Your task to perform on an android device: change keyboard looks Image 0: 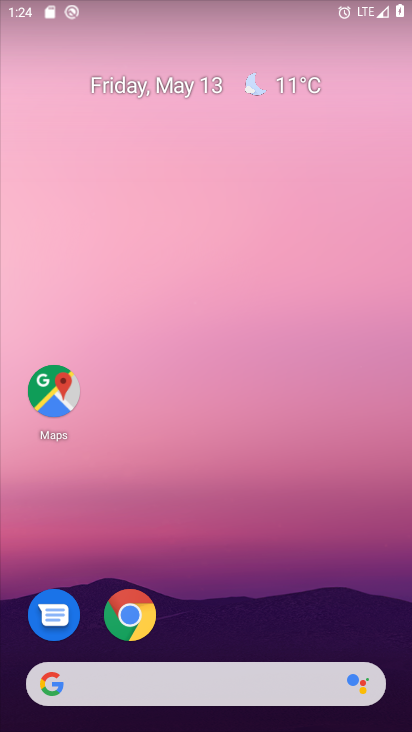
Step 0: drag from (268, 606) to (261, 40)
Your task to perform on an android device: change keyboard looks Image 1: 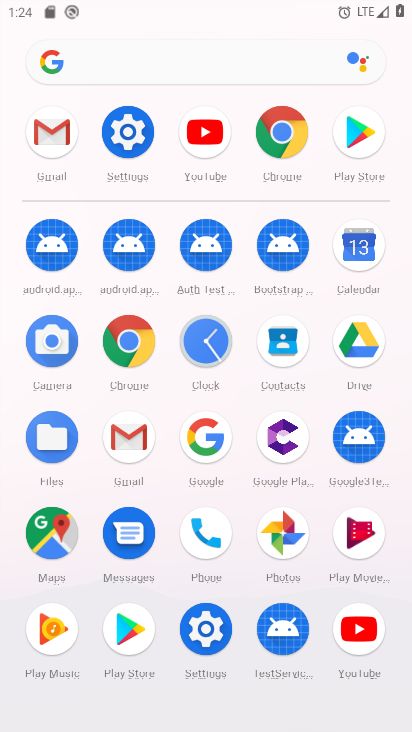
Step 1: click (137, 139)
Your task to perform on an android device: change keyboard looks Image 2: 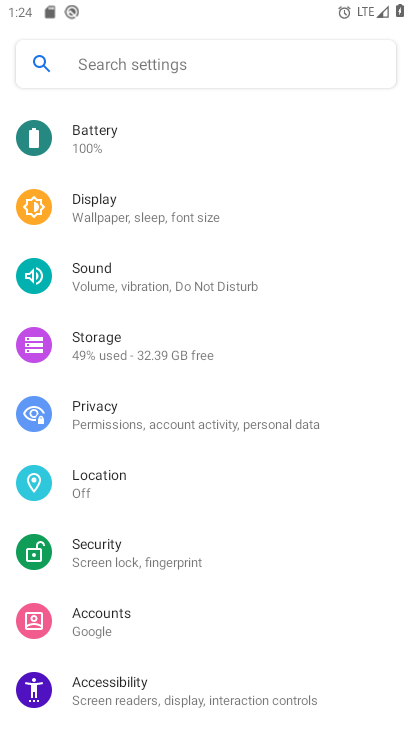
Step 2: drag from (212, 621) to (226, 97)
Your task to perform on an android device: change keyboard looks Image 3: 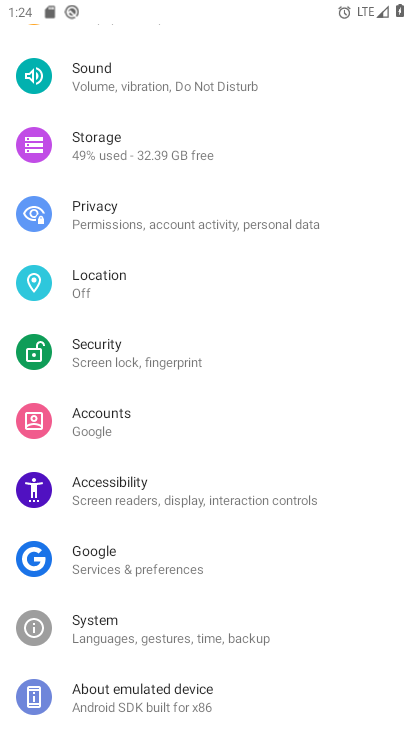
Step 3: click (204, 697)
Your task to perform on an android device: change keyboard looks Image 4: 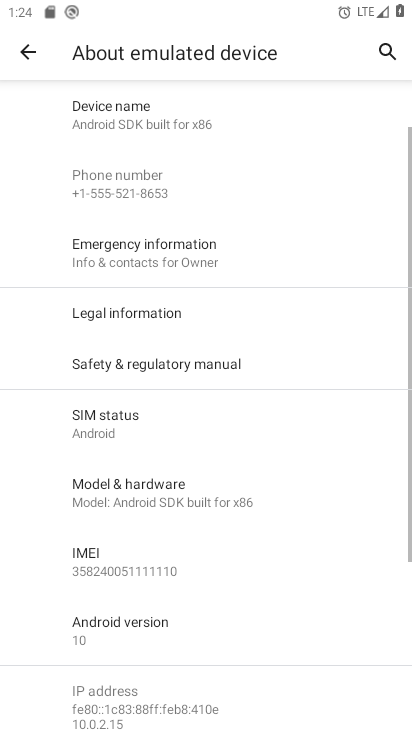
Step 4: click (24, 49)
Your task to perform on an android device: change keyboard looks Image 5: 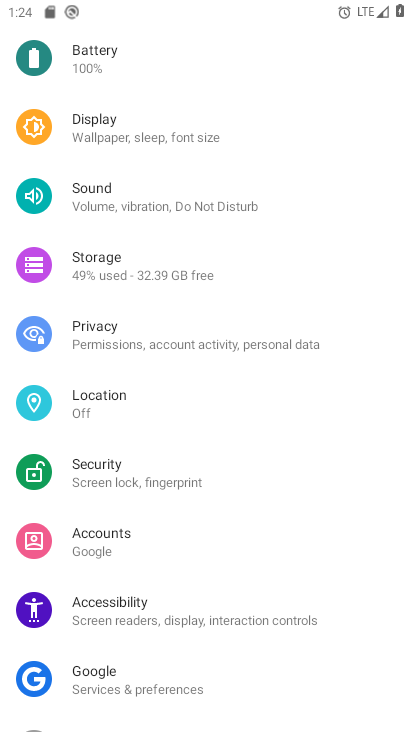
Step 5: drag from (158, 657) to (165, 548)
Your task to perform on an android device: change keyboard looks Image 6: 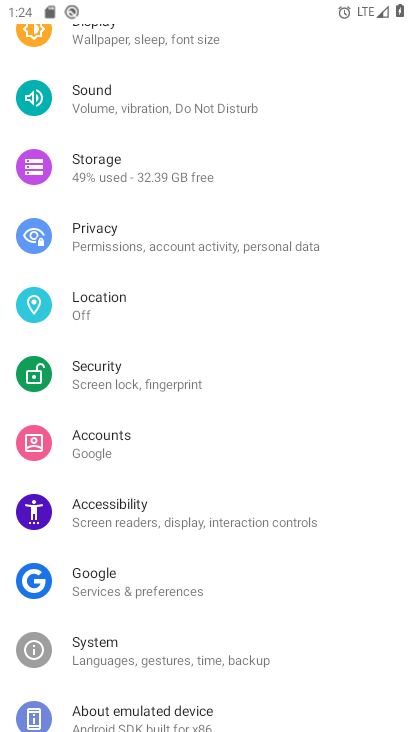
Step 6: click (145, 635)
Your task to perform on an android device: change keyboard looks Image 7: 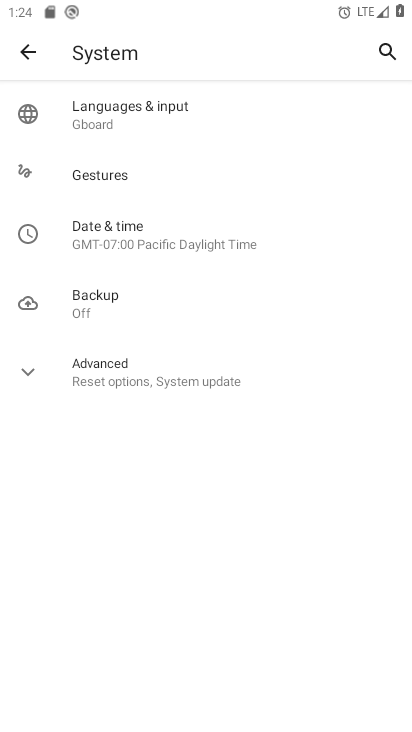
Step 7: click (127, 124)
Your task to perform on an android device: change keyboard looks Image 8: 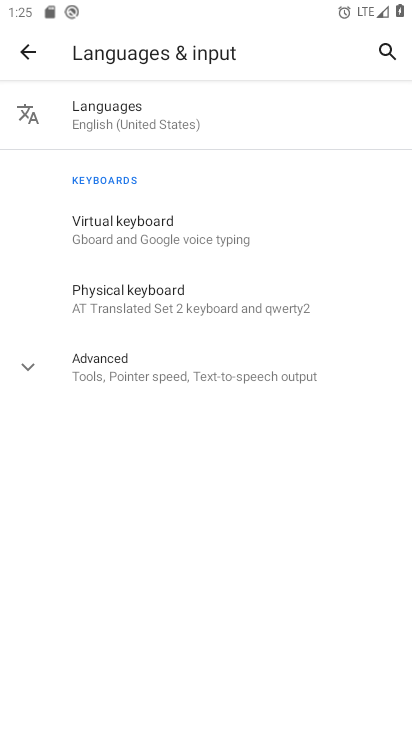
Step 8: click (120, 227)
Your task to perform on an android device: change keyboard looks Image 9: 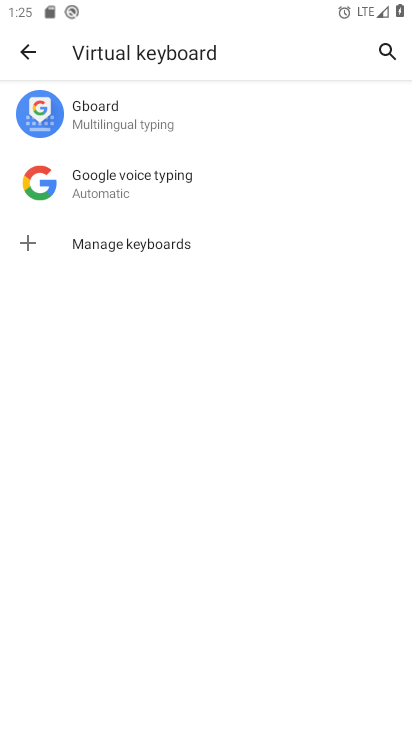
Step 9: click (107, 113)
Your task to perform on an android device: change keyboard looks Image 10: 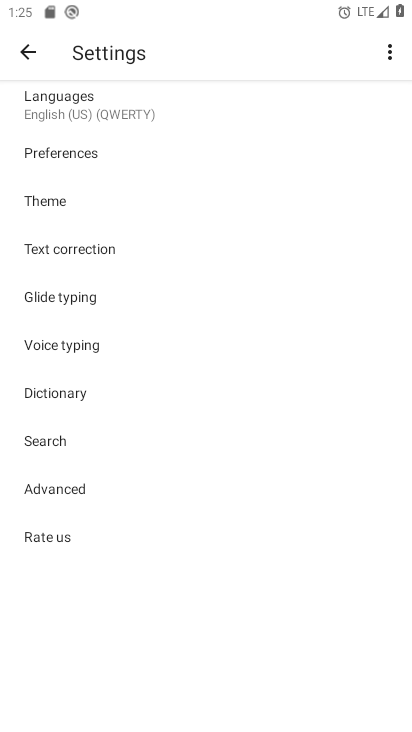
Step 10: click (79, 204)
Your task to perform on an android device: change keyboard looks Image 11: 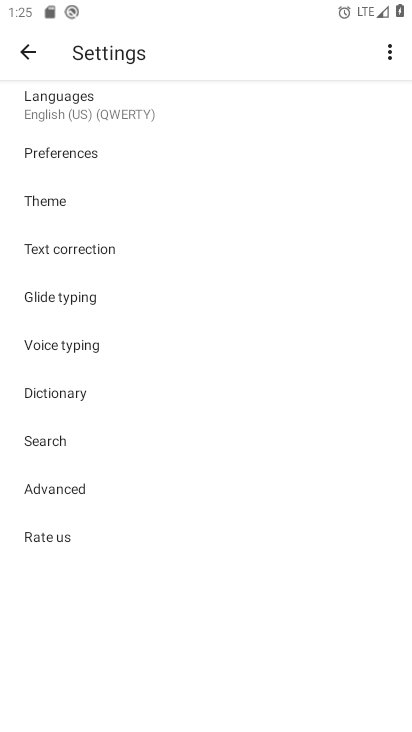
Step 11: click (89, 197)
Your task to perform on an android device: change keyboard looks Image 12: 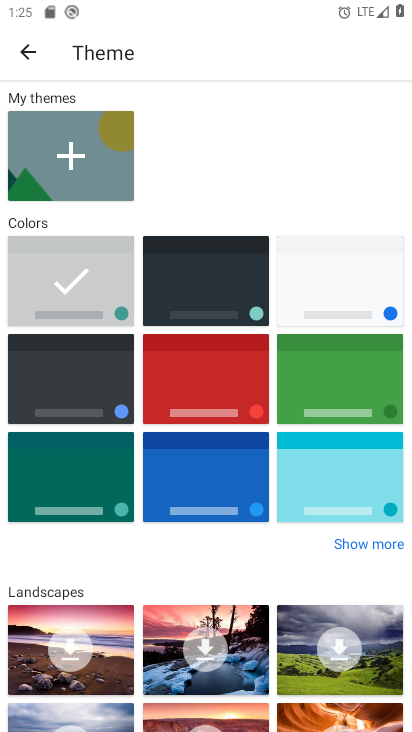
Step 12: click (181, 281)
Your task to perform on an android device: change keyboard looks Image 13: 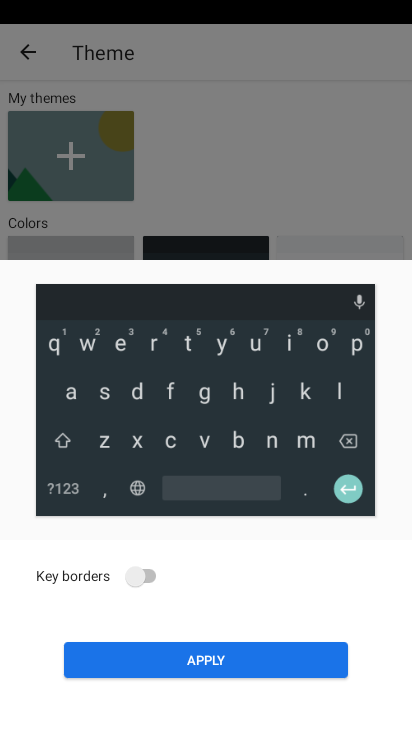
Step 13: click (139, 571)
Your task to perform on an android device: change keyboard looks Image 14: 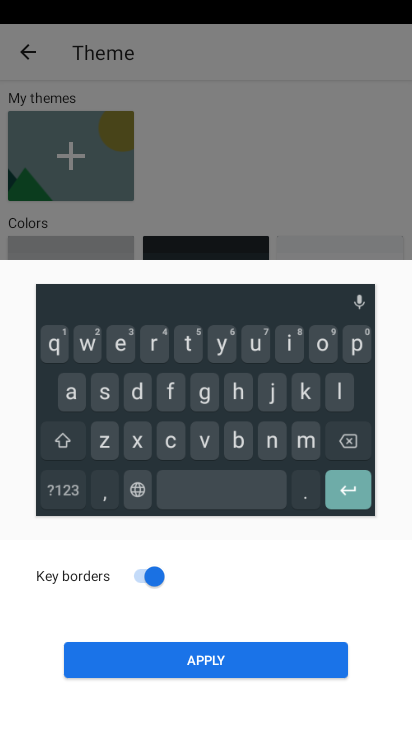
Step 14: click (191, 654)
Your task to perform on an android device: change keyboard looks Image 15: 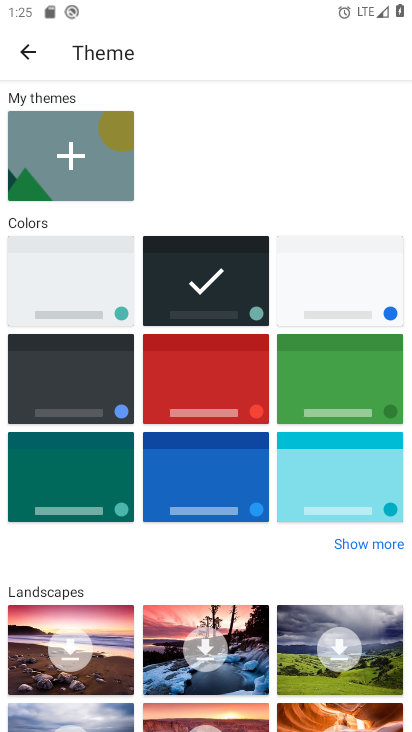
Step 15: task complete